Your task to perform on an android device: Search for Italian restaurants on Maps Image 0: 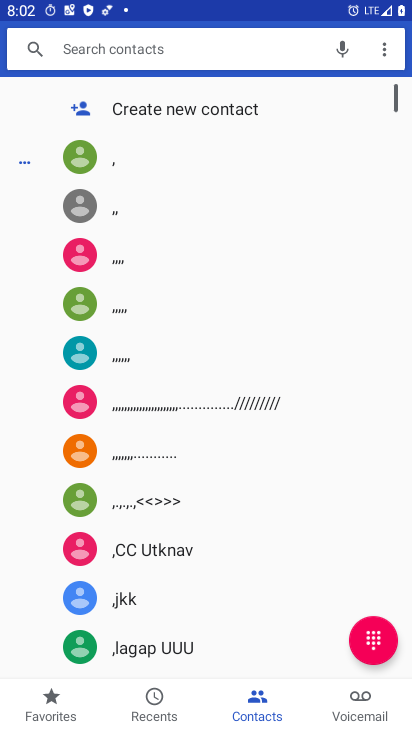
Step 0: press home button
Your task to perform on an android device: Search for Italian restaurants on Maps Image 1: 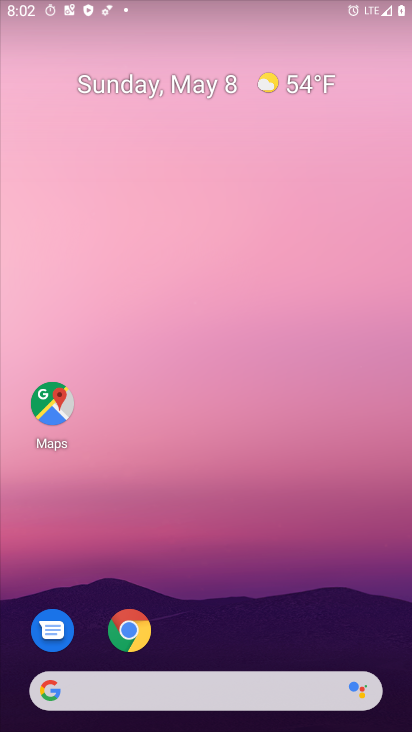
Step 1: drag from (204, 651) to (107, 19)
Your task to perform on an android device: Search for Italian restaurants on Maps Image 2: 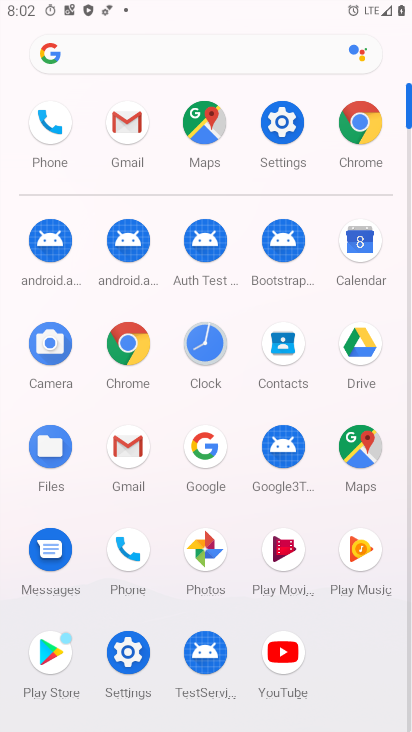
Step 2: click (363, 461)
Your task to perform on an android device: Search for Italian restaurants on Maps Image 3: 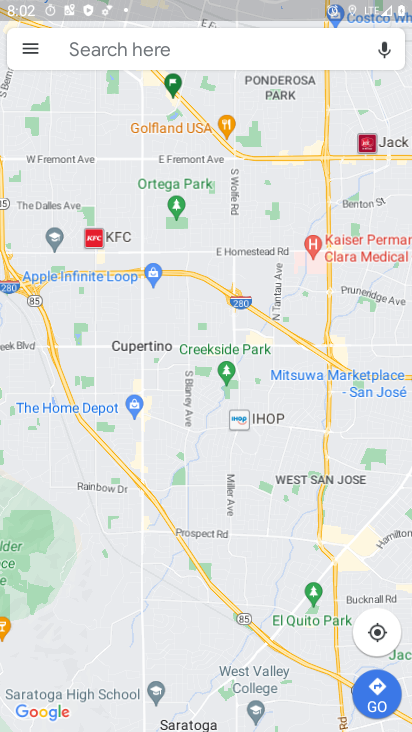
Step 3: click (198, 40)
Your task to perform on an android device: Search for Italian restaurants on Maps Image 4: 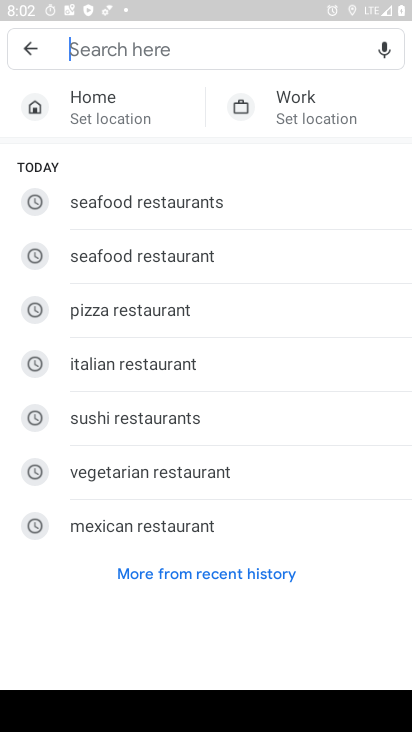
Step 4: click (110, 357)
Your task to perform on an android device: Search for Italian restaurants on Maps Image 5: 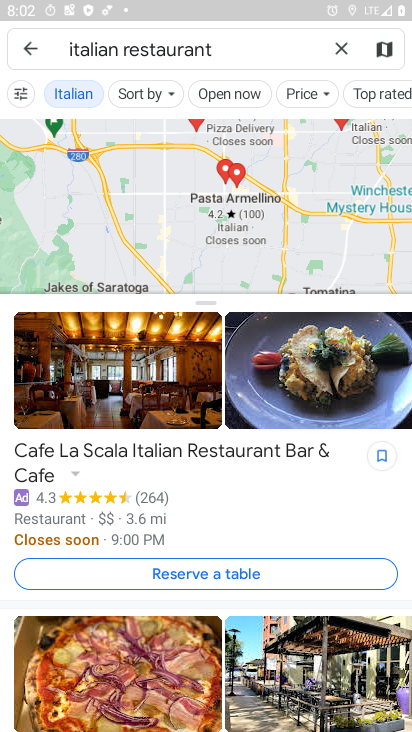
Step 5: task complete